Your task to perform on an android device: Is it going to rain this weekend? Image 0: 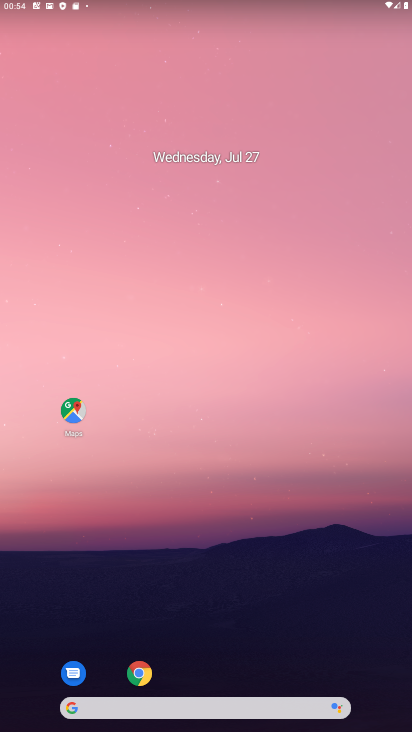
Step 0: drag from (191, 656) to (201, 182)
Your task to perform on an android device: Is it going to rain this weekend? Image 1: 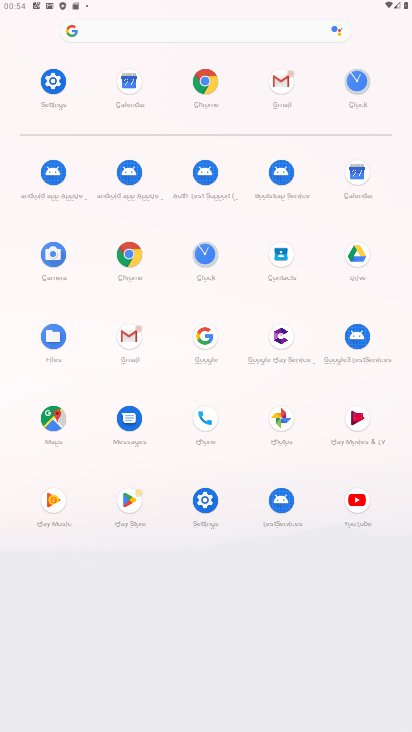
Step 1: click (196, 79)
Your task to perform on an android device: Is it going to rain this weekend? Image 2: 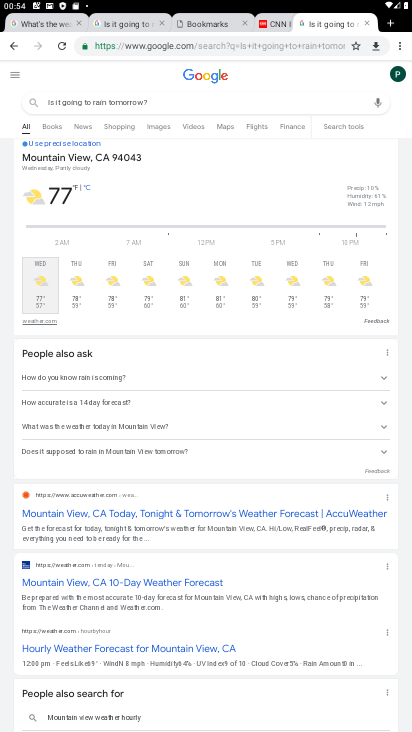
Step 2: click (397, 24)
Your task to perform on an android device: Is it going to rain this weekend? Image 3: 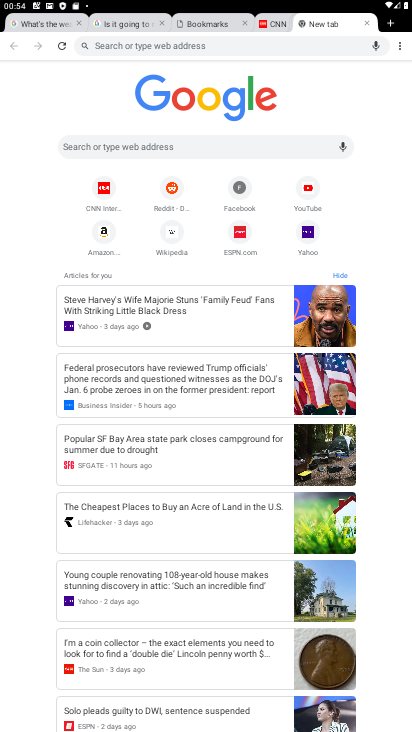
Step 3: click (215, 141)
Your task to perform on an android device: Is it going to rain this weekend? Image 4: 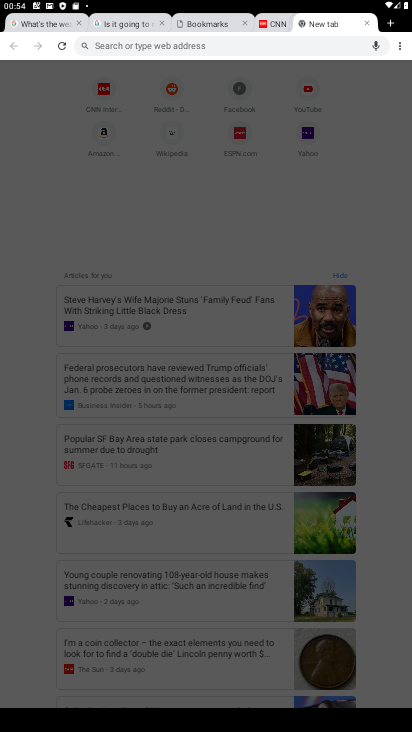
Step 4: type "Is it going to rain this weekend? "
Your task to perform on an android device: Is it going to rain this weekend? Image 5: 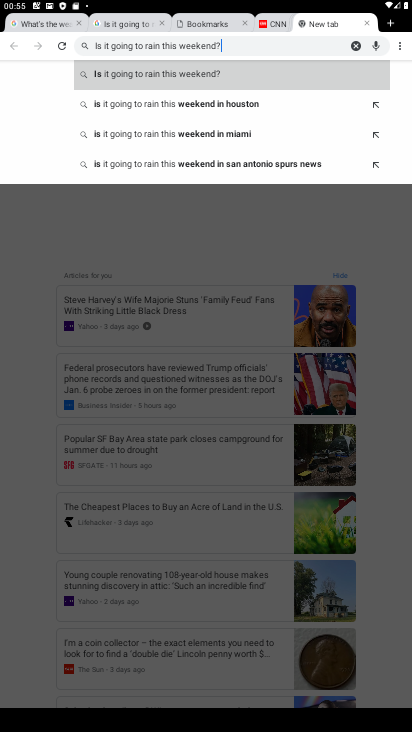
Step 5: click (218, 75)
Your task to perform on an android device: Is it going to rain this weekend? Image 6: 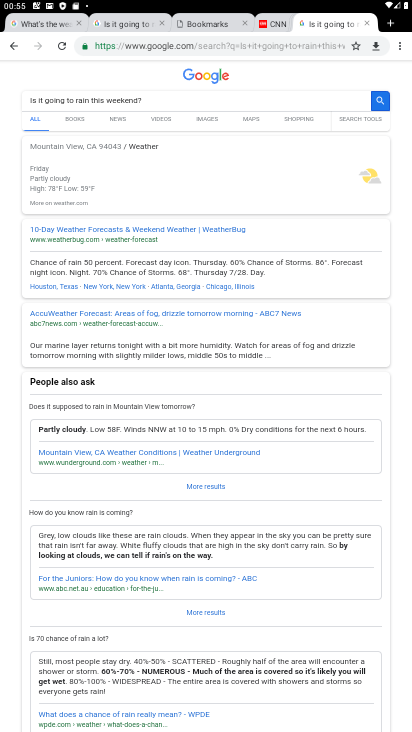
Step 6: task complete